Your task to perform on an android device: open chrome and create a bookmark for the current page Image 0: 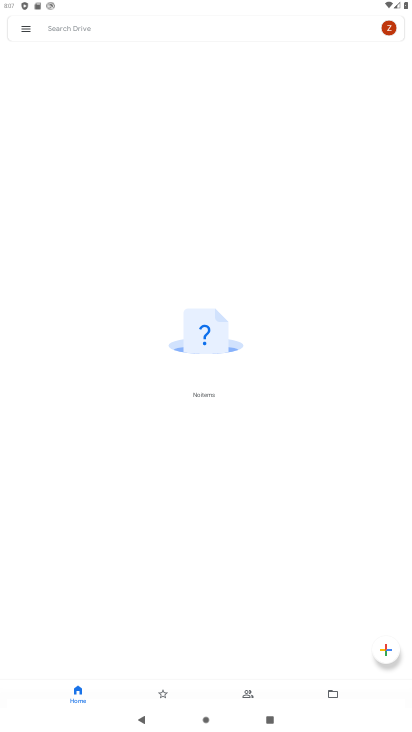
Step 0: press home button
Your task to perform on an android device: open chrome and create a bookmark for the current page Image 1: 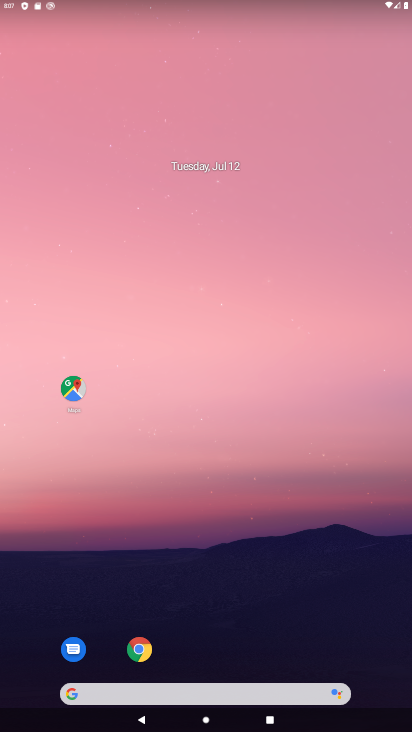
Step 1: click (141, 649)
Your task to perform on an android device: open chrome and create a bookmark for the current page Image 2: 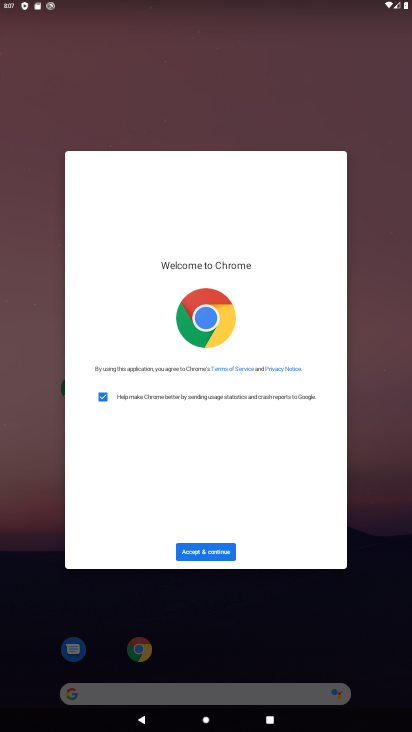
Step 2: click (209, 550)
Your task to perform on an android device: open chrome and create a bookmark for the current page Image 3: 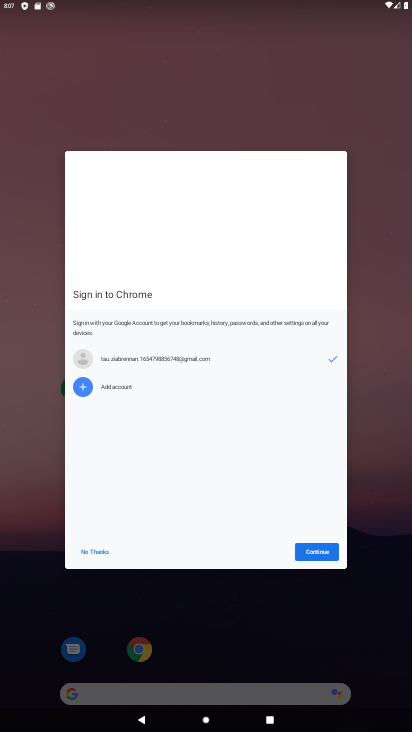
Step 3: click (322, 550)
Your task to perform on an android device: open chrome and create a bookmark for the current page Image 4: 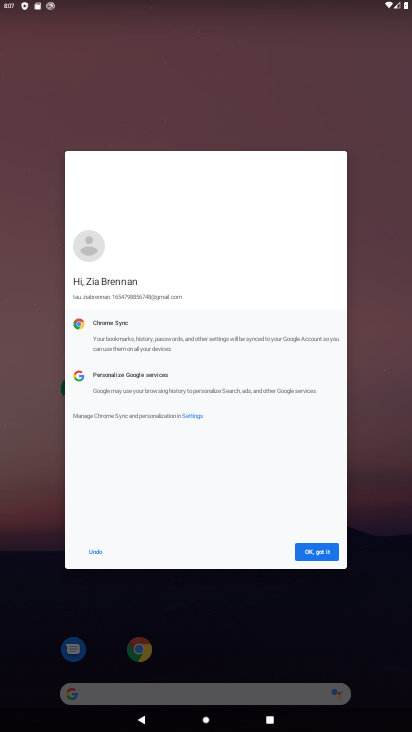
Step 4: click (314, 550)
Your task to perform on an android device: open chrome and create a bookmark for the current page Image 5: 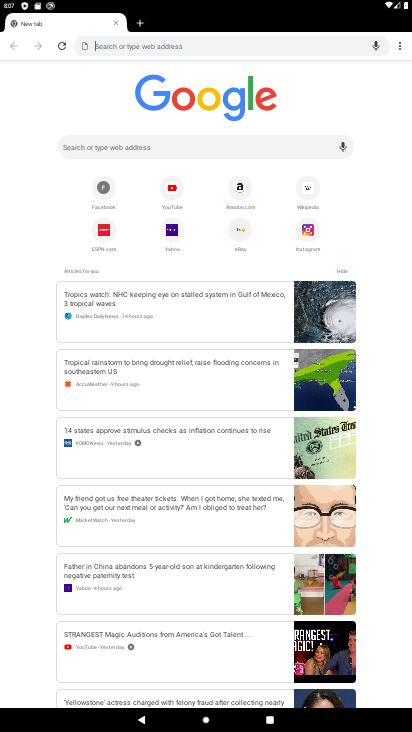
Step 5: click (400, 42)
Your task to perform on an android device: open chrome and create a bookmark for the current page Image 6: 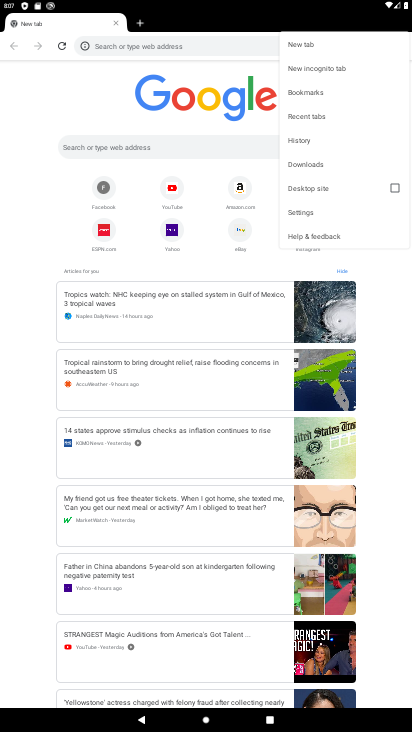
Step 6: click (105, 107)
Your task to perform on an android device: open chrome and create a bookmark for the current page Image 7: 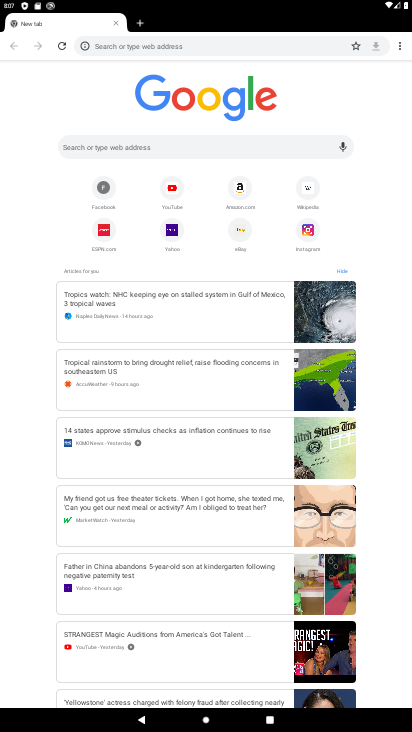
Step 7: click (357, 47)
Your task to perform on an android device: open chrome and create a bookmark for the current page Image 8: 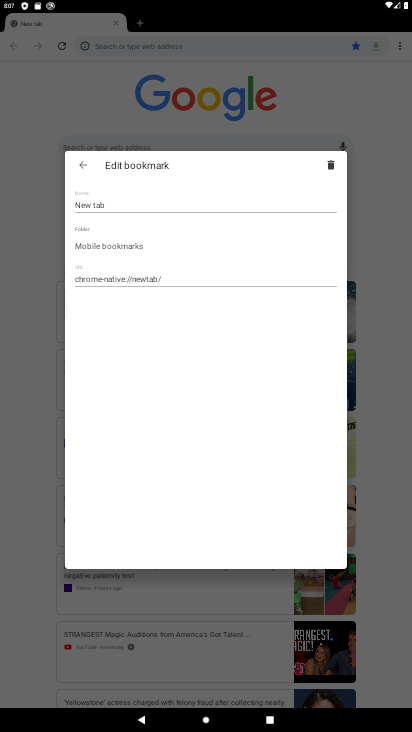
Step 8: task complete